Your task to perform on an android device: set the stopwatch Image 0: 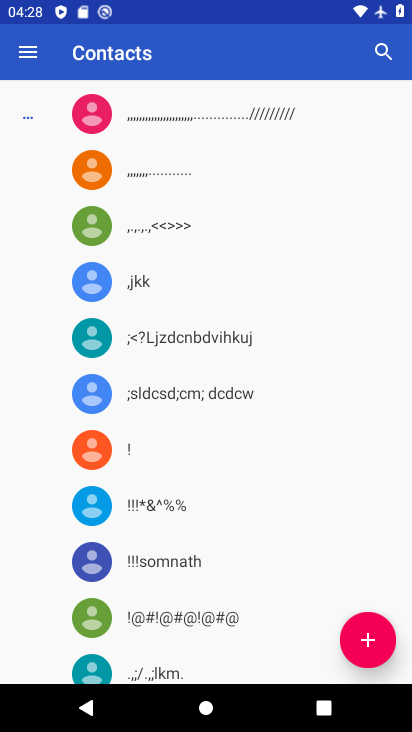
Step 0: press home button
Your task to perform on an android device: set the stopwatch Image 1: 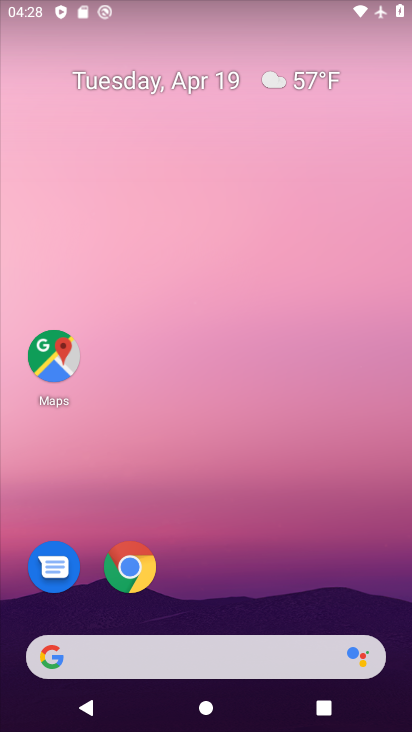
Step 1: drag from (365, 582) to (374, 242)
Your task to perform on an android device: set the stopwatch Image 2: 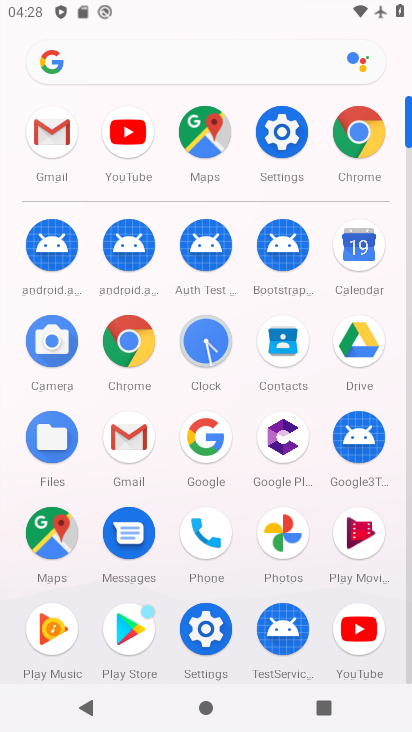
Step 2: click (213, 348)
Your task to perform on an android device: set the stopwatch Image 3: 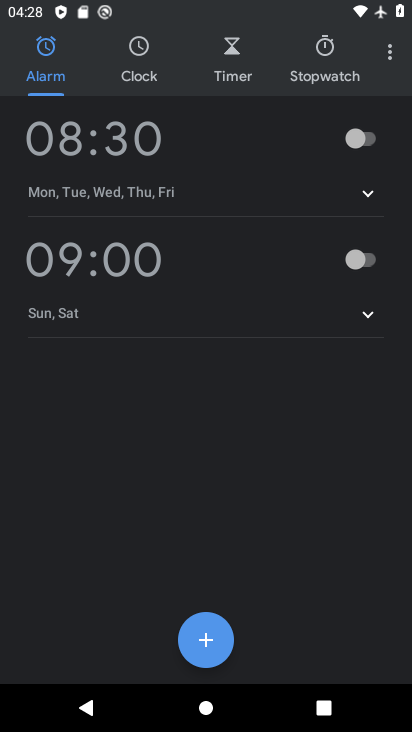
Step 3: click (320, 56)
Your task to perform on an android device: set the stopwatch Image 4: 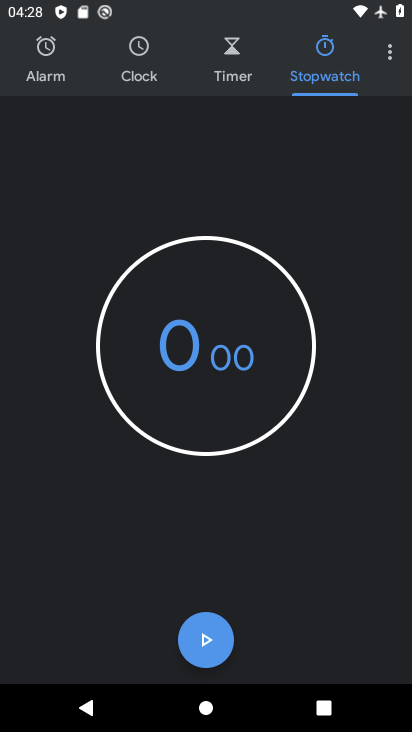
Step 4: task complete